Your task to perform on an android device: Open calendar and show me the third week of next month Image 0: 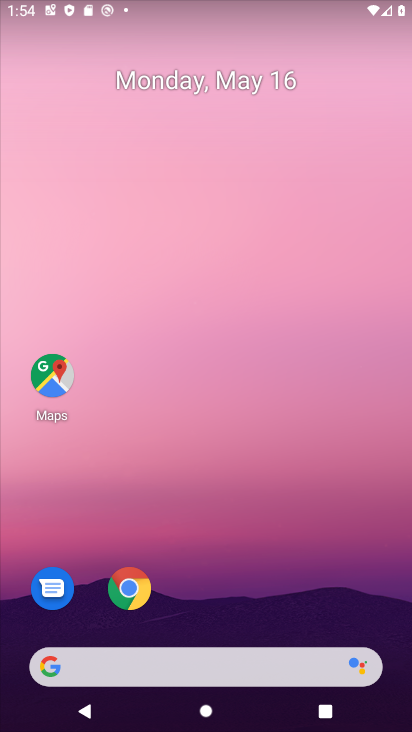
Step 0: drag from (263, 595) to (216, 198)
Your task to perform on an android device: Open calendar and show me the third week of next month Image 1: 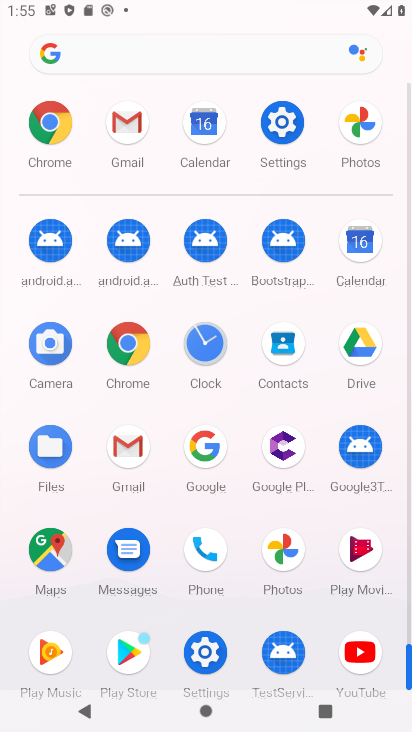
Step 1: click (362, 240)
Your task to perform on an android device: Open calendar and show me the third week of next month Image 2: 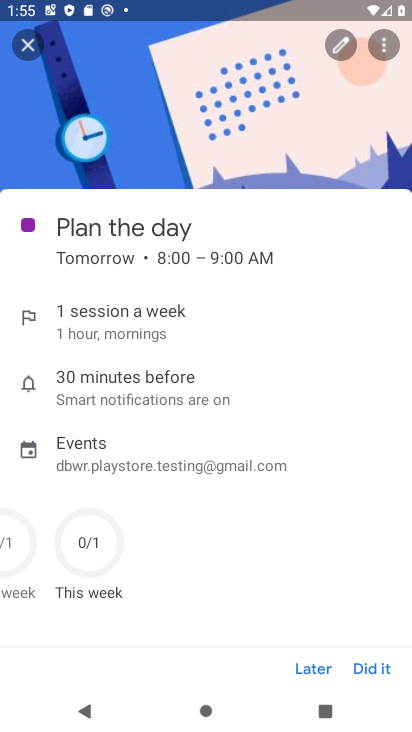
Step 2: click (26, 43)
Your task to perform on an android device: Open calendar and show me the third week of next month Image 3: 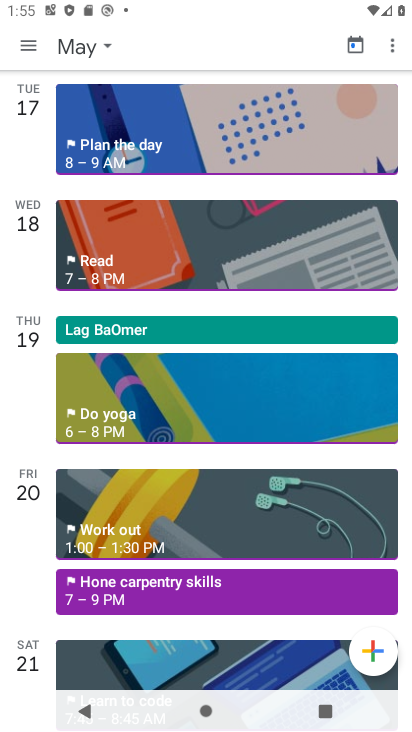
Step 3: click (105, 46)
Your task to perform on an android device: Open calendar and show me the third week of next month Image 4: 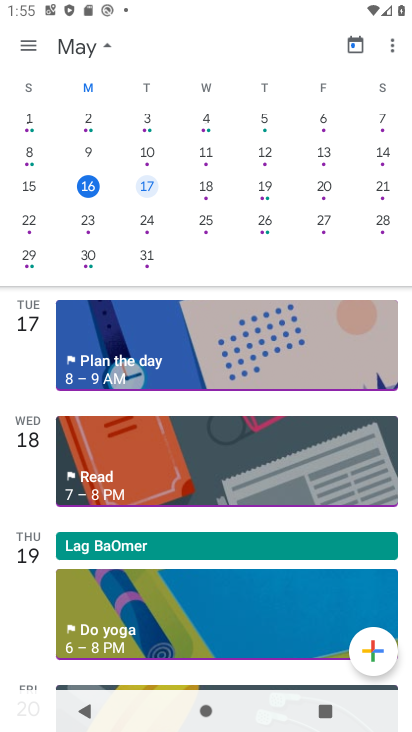
Step 4: click (362, 42)
Your task to perform on an android device: Open calendar and show me the third week of next month Image 5: 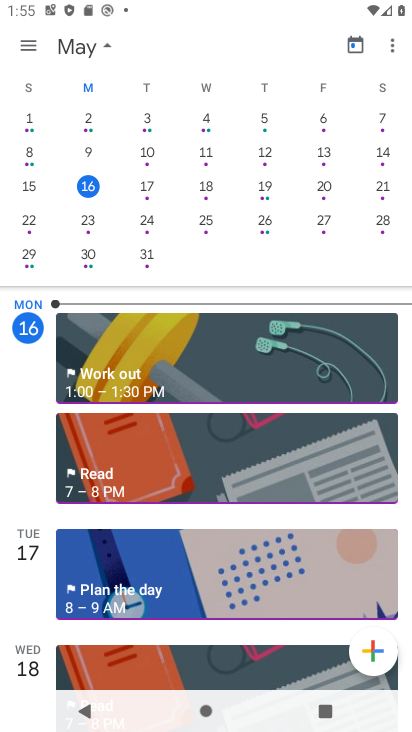
Step 5: drag from (374, 169) to (10, 175)
Your task to perform on an android device: Open calendar and show me the third week of next month Image 6: 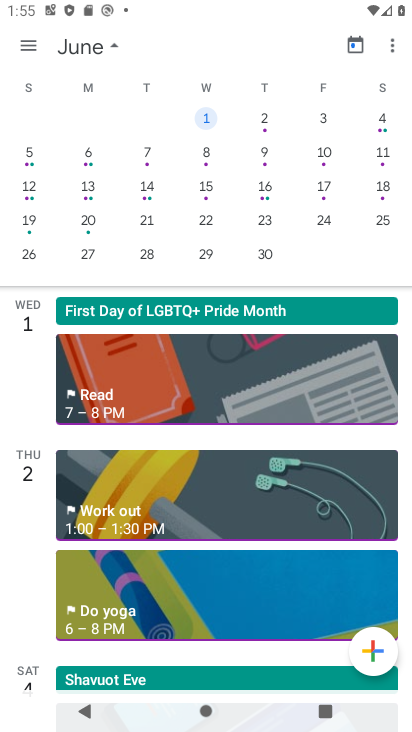
Step 6: click (92, 215)
Your task to perform on an android device: Open calendar and show me the third week of next month Image 7: 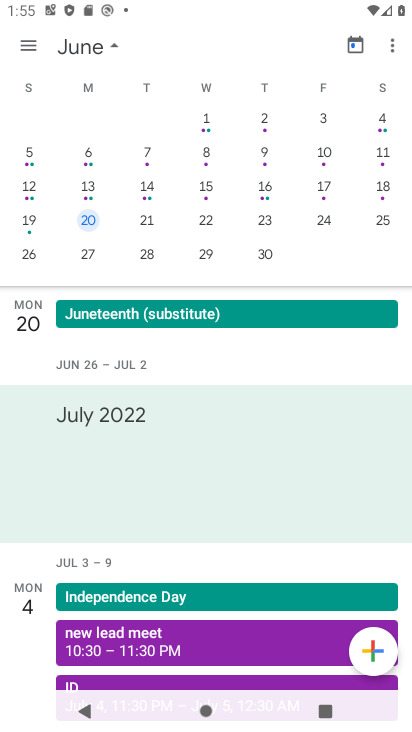
Step 7: click (26, 41)
Your task to perform on an android device: Open calendar and show me the third week of next month Image 8: 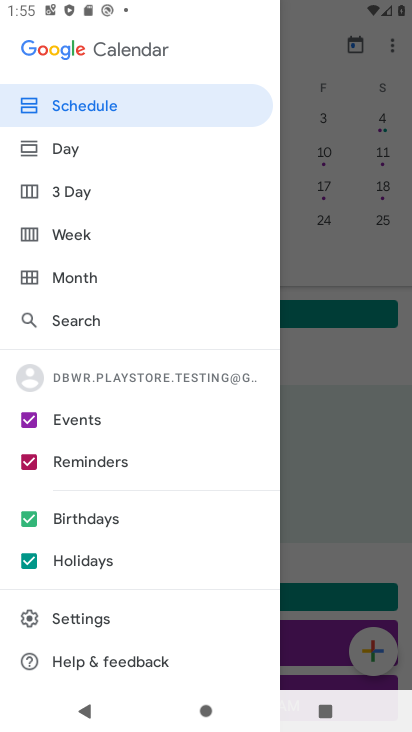
Step 8: click (76, 225)
Your task to perform on an android device: Open calendar and show me the third week of next month Image 9: 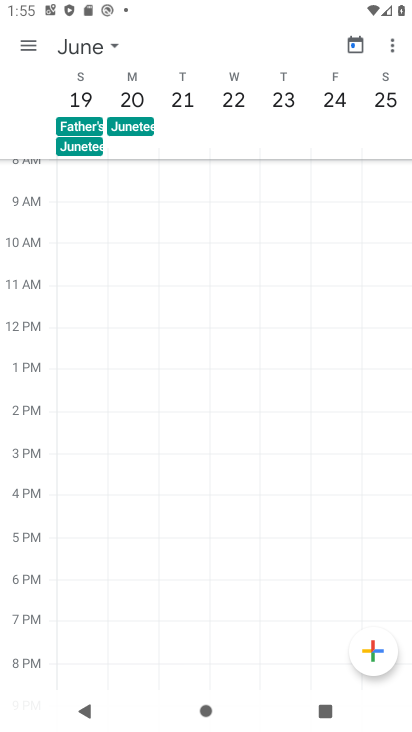
Step 9: task complete